Your task to perform on an android device: check storage Image 0: 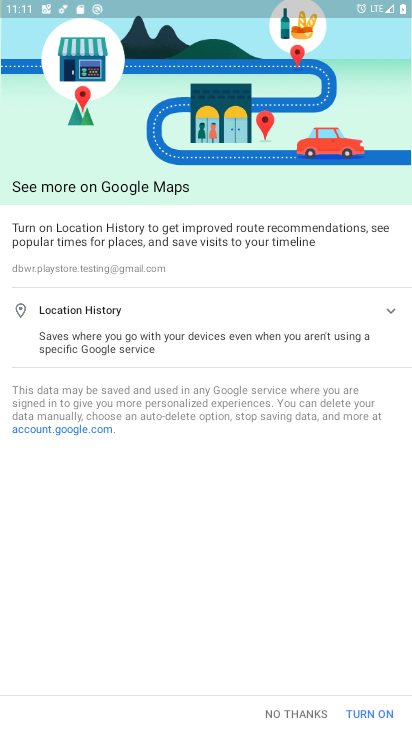
Step 0: press home button
Your task to perform on an android device: check storage Image 1: 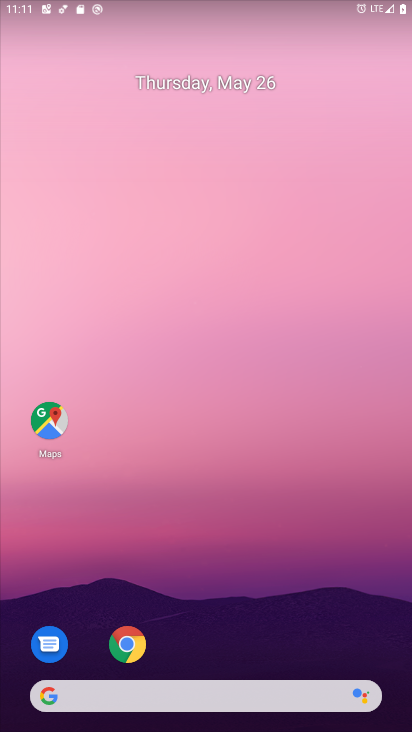
Step 1: drag from (358, 621) to (345, 248)
Your task to perform on an android device: check storage Image 2: 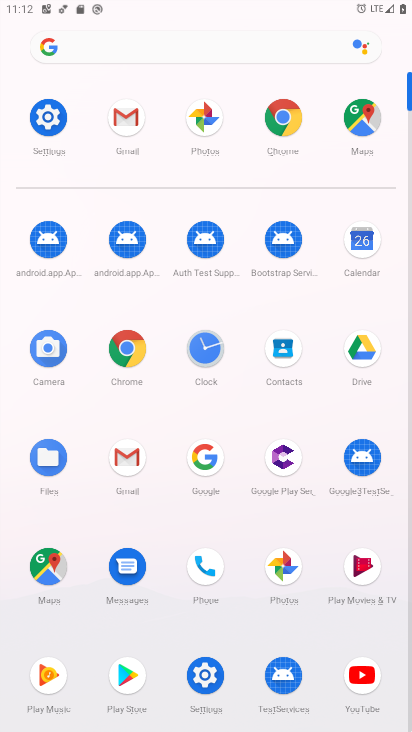
Step 2: click (52, 132)
Your task to perform on an android device: check storage Image 3: 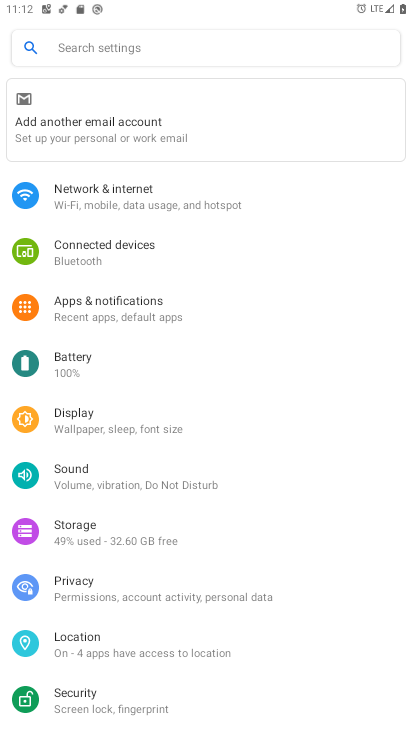
Step 3: click (160, 529)
Your task to perform on an android device: check storage Image 4: 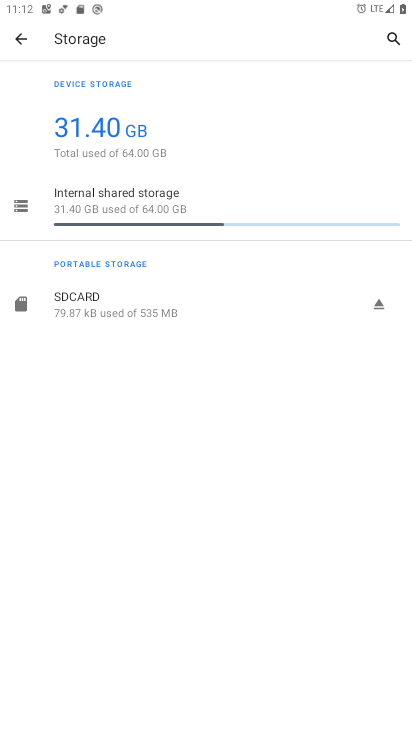
Step 4: task complete